Your task to perform on an android device: toggle notifications settings in the gmail app Image 0: 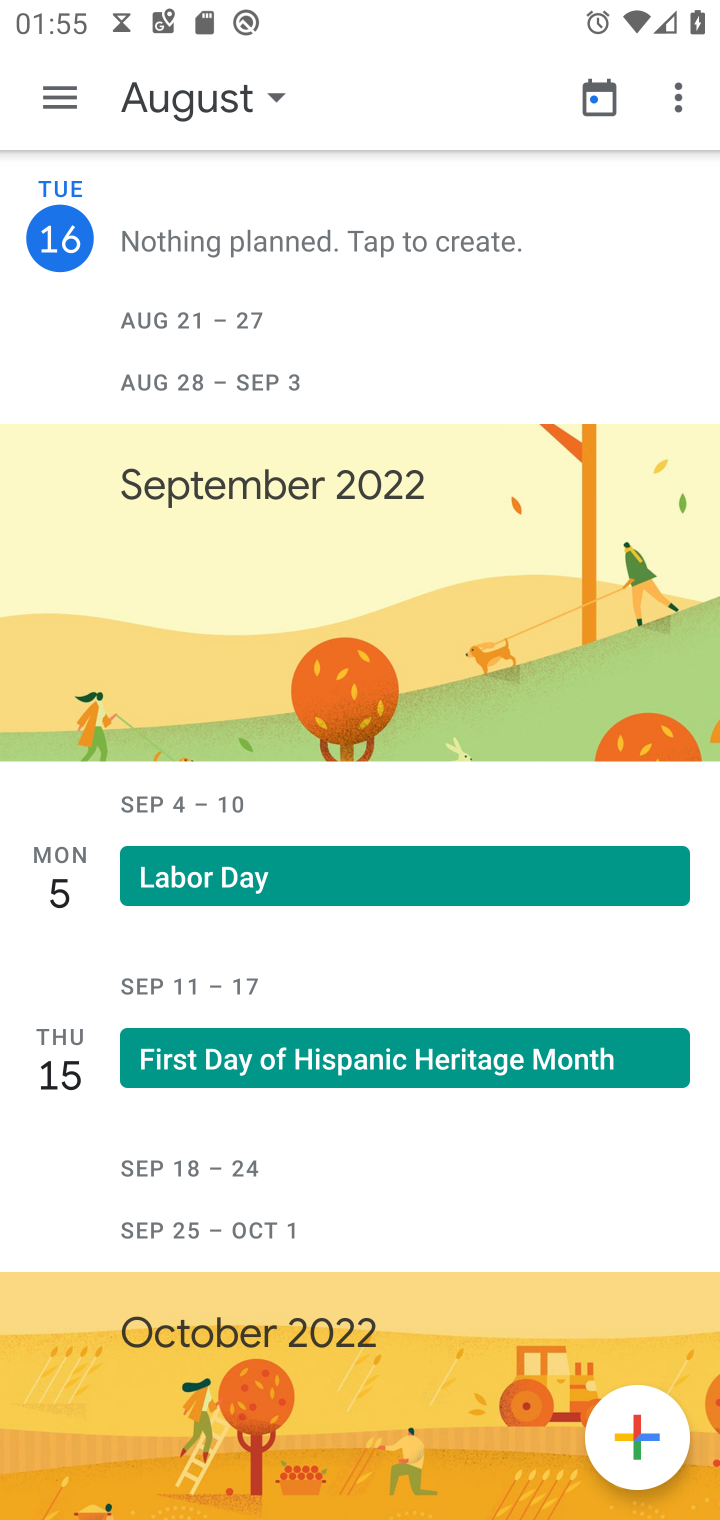
Step 0: press home button
Your task to perform on an android device: toggle notifications settings in the gmail app Image 1: 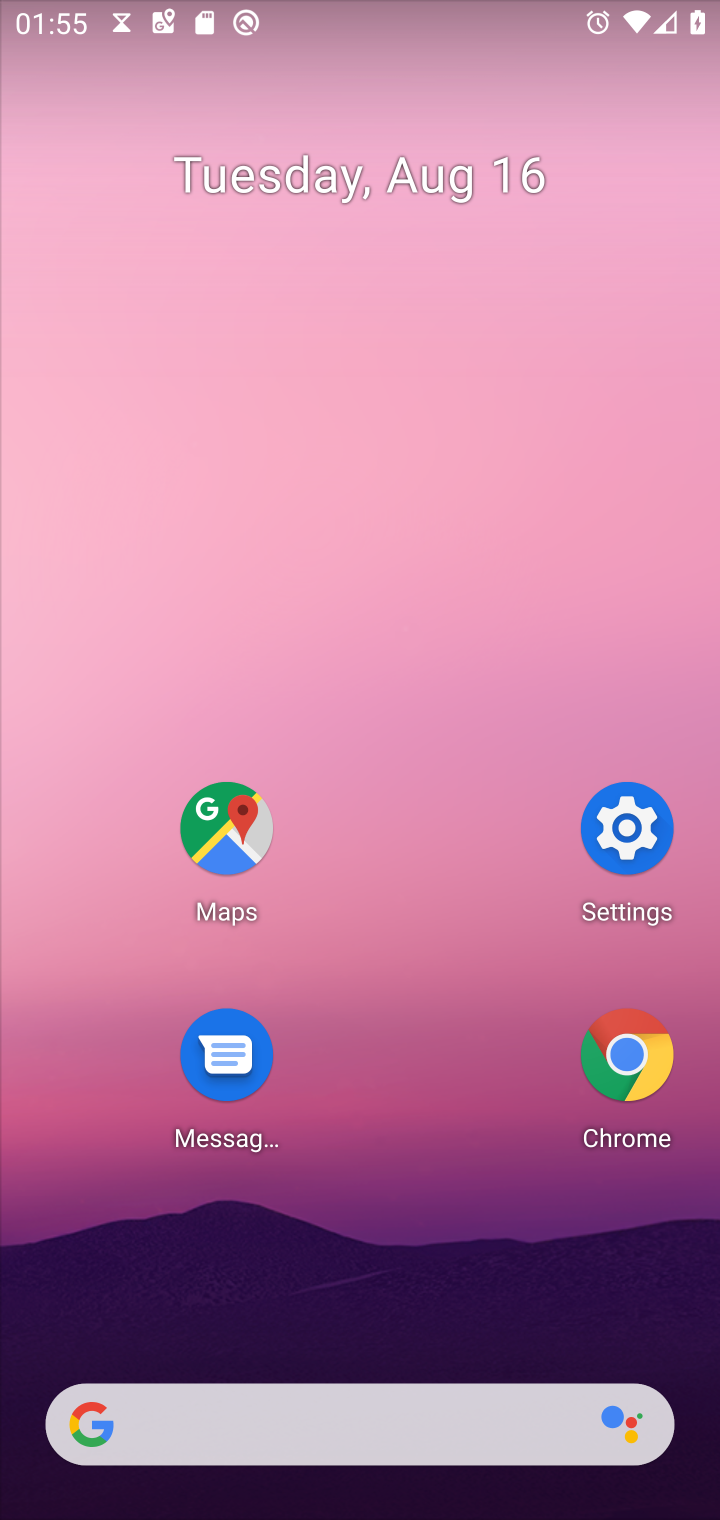
Step 1: drag from (344, 1421) to (607, 149)
Your task to perform on an android device: toggle notifications settings in the gmail app Image 2: 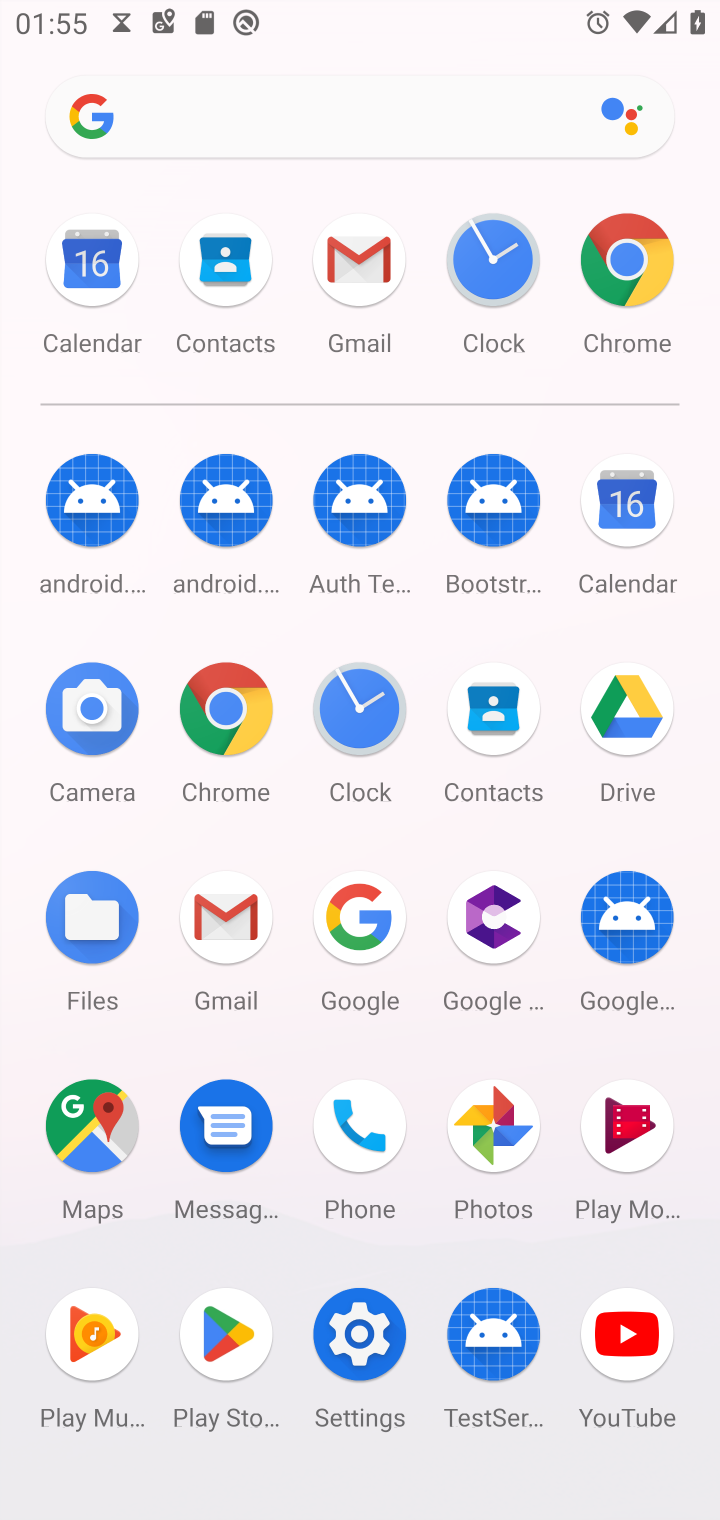
Step 2: click (361, 259)
Your task to perform on an android device: toggle notifications settings in the gmail app Image 3: 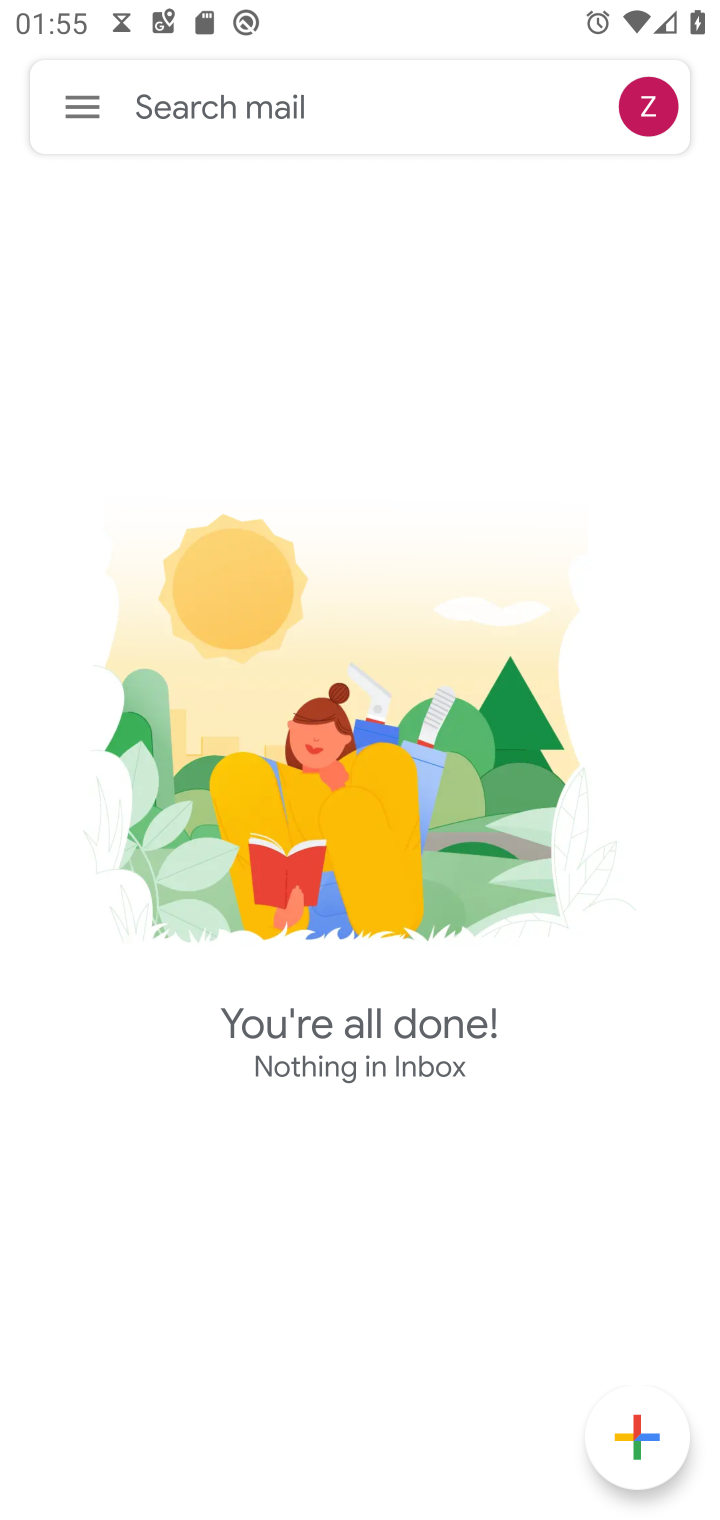
Step 3: click (79, 114)
Your task to perform on an android device: toggle notifications settings in the gmail app Image 4: 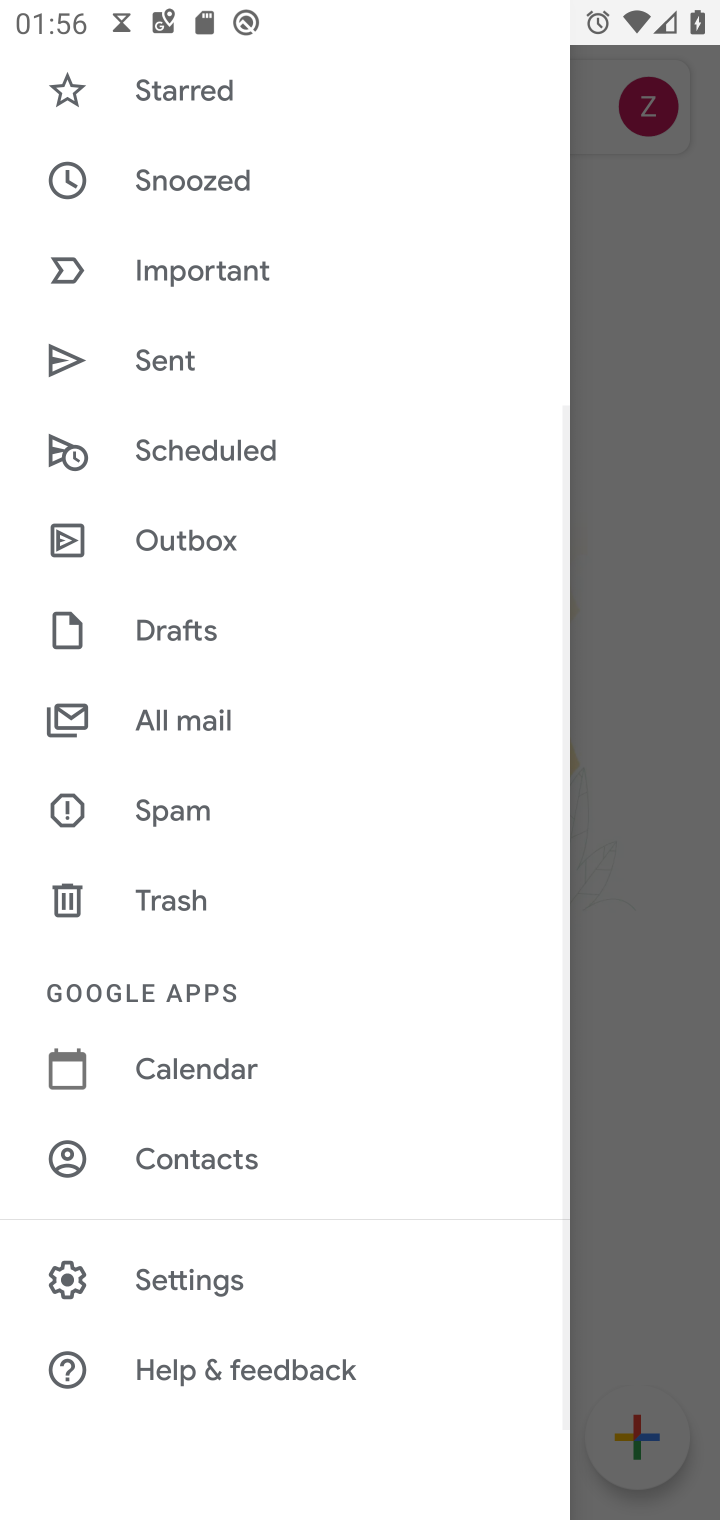
Step 4: click (234, 1276)
Your task to perform on an android device: toggle notifications settings in the gmail app Image 5: 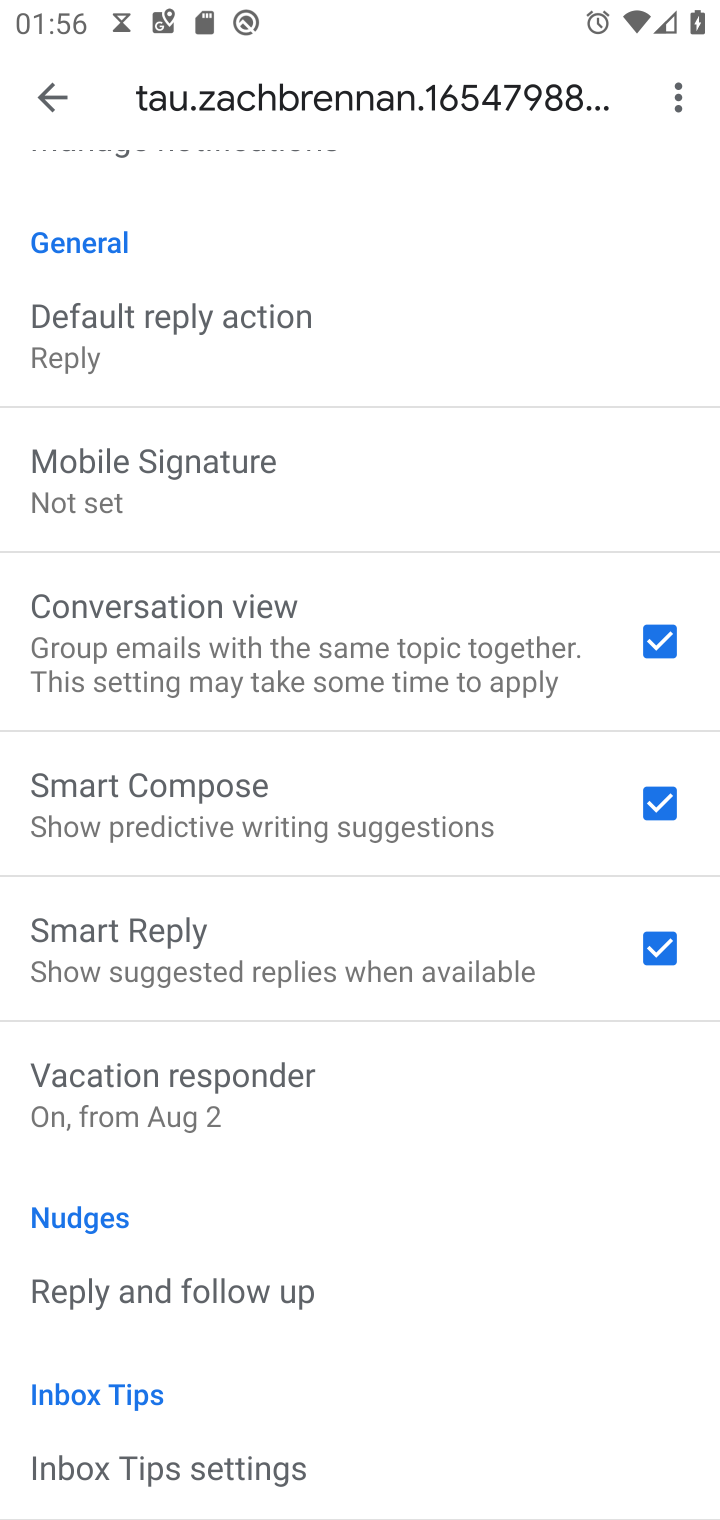
Step 5: drag from (473, 302) to (463, 1283)
Your task to perform on an android device: toggle notifications settings in the gmail app Image 6: 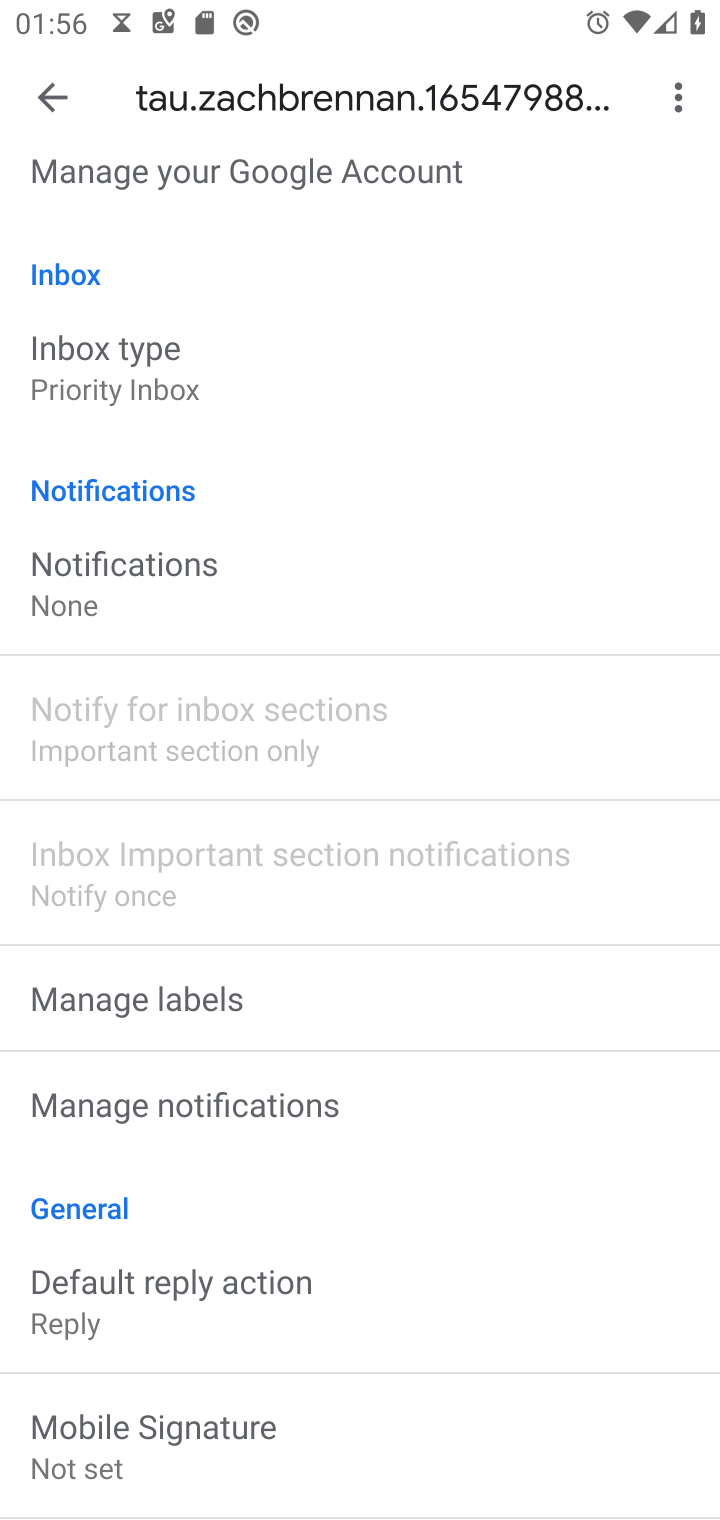
Step 6: click (132, 560)
Your task to perform on an android device: toggle notifications settings in the gmail app Image 7: 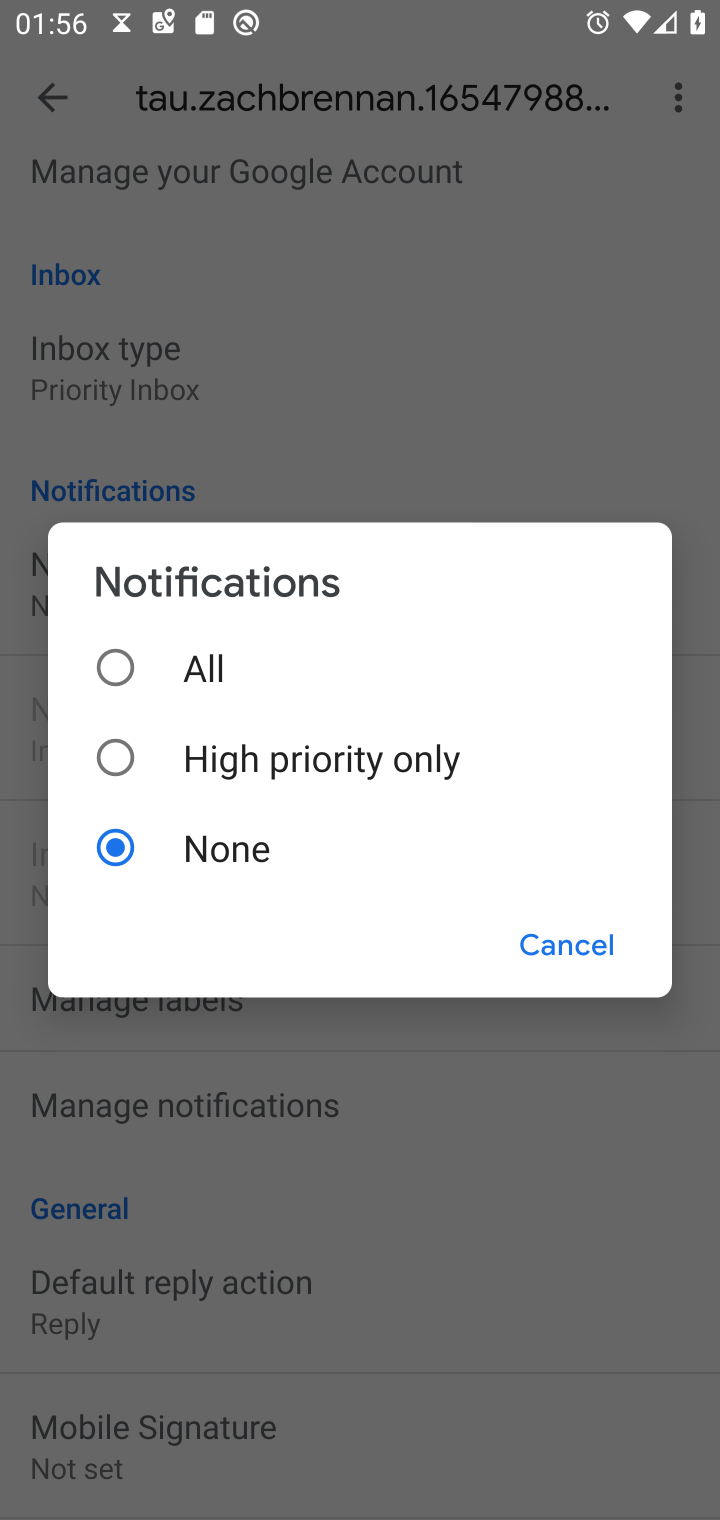
Step 7: click (112, 665)
Your task to perform on an android device: toggle notifications settings in the gmail app Image 8: 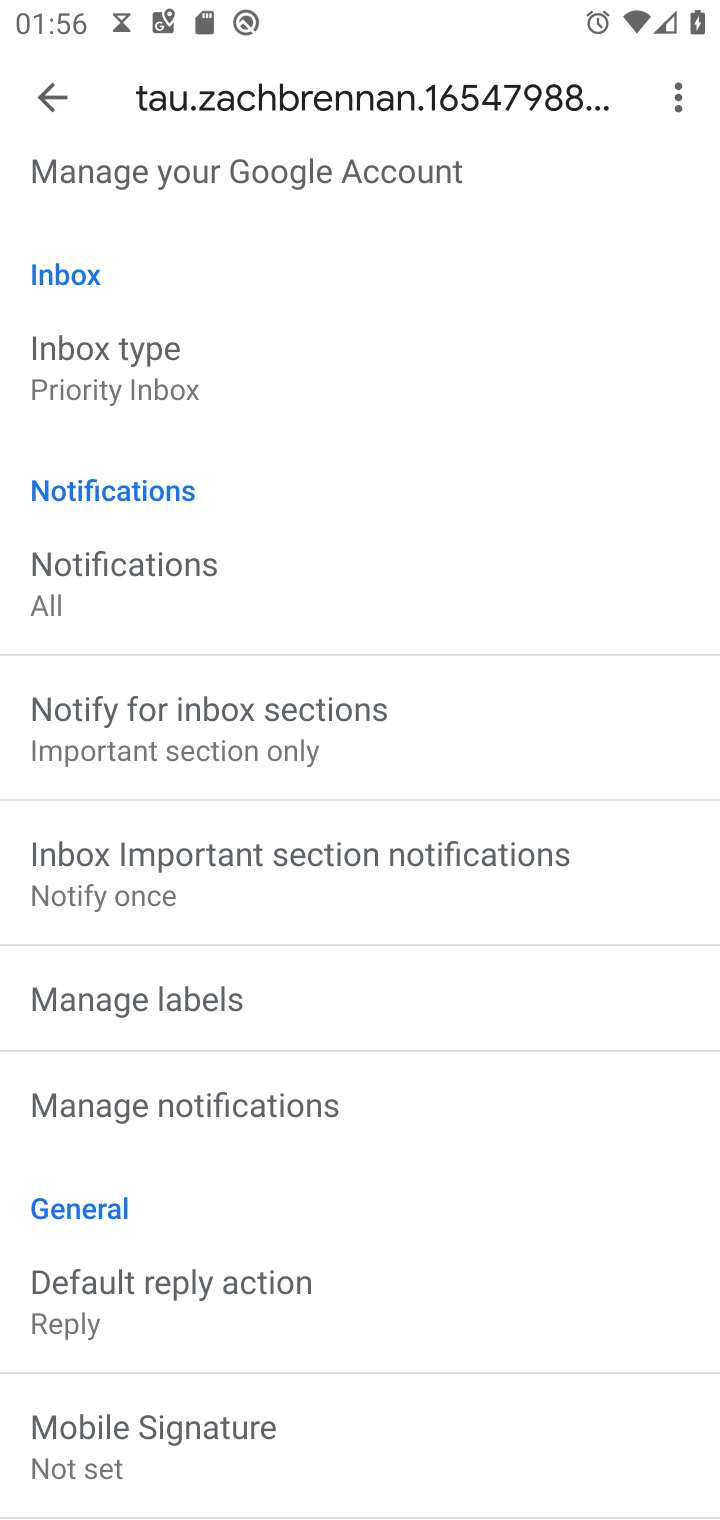
Step 8: task complete